Your task to perform on an android device: Play the last video I watched on Youtube Image 0: 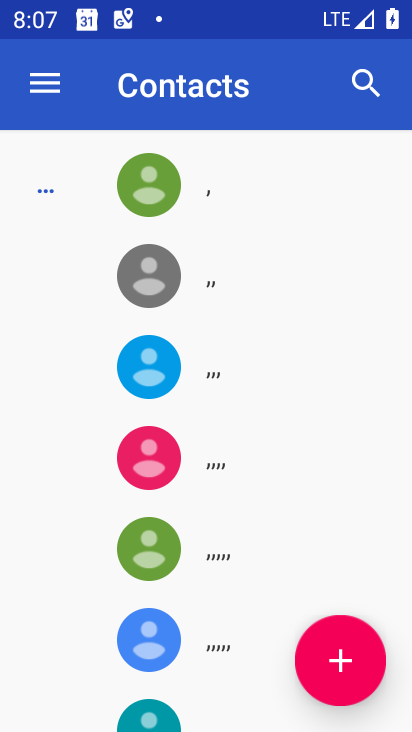
Step 0: press home button
Your task to perform on an android device: Play the last video I watched on Youtube Image 1: 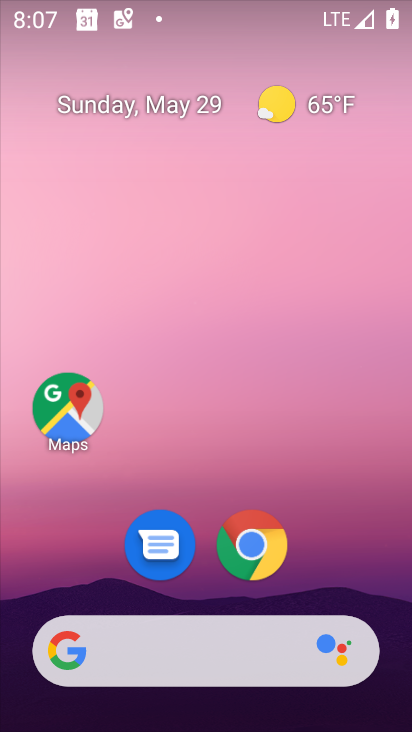
Step 1: drag from (162, 589) to (208, 220)
Your task to perform on an android device: Play the last video I watched on Youtube Image 2: 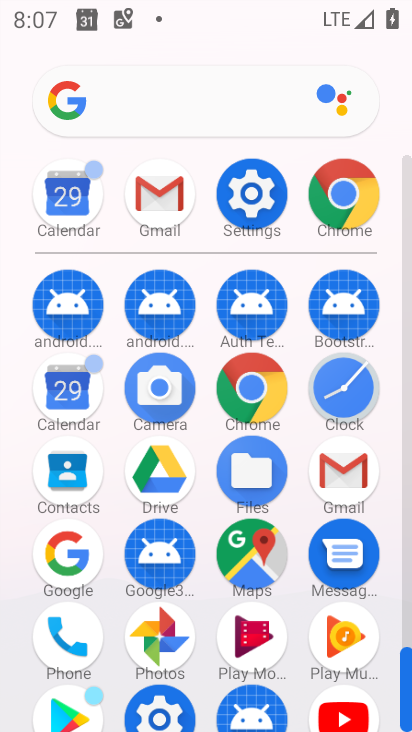
Step 2: click (328, 720)
Your task to perform on an android device: Play the last video I watched on Youtube Image 3: 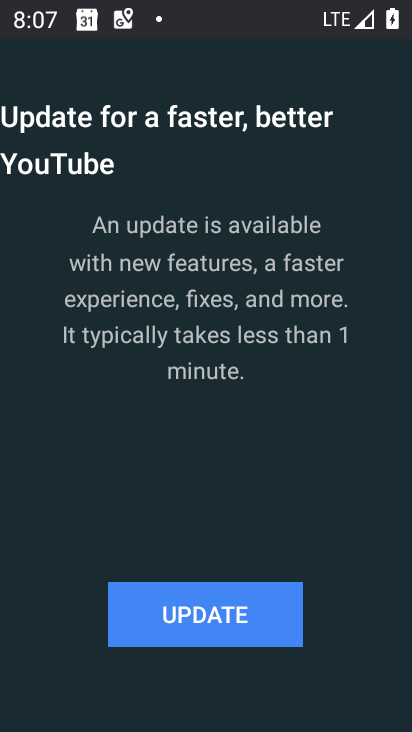
Step 3: click (253, 629)
Your task to perform on an android device: Play the last video I watched on Youtube Image 4: 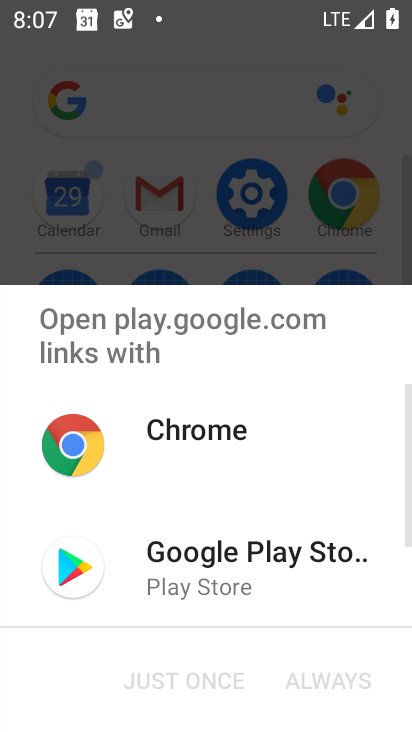
Step 4: click (182, 556)
Your task to perform on an android device: Play the last video I watched on Youtube Image 5: 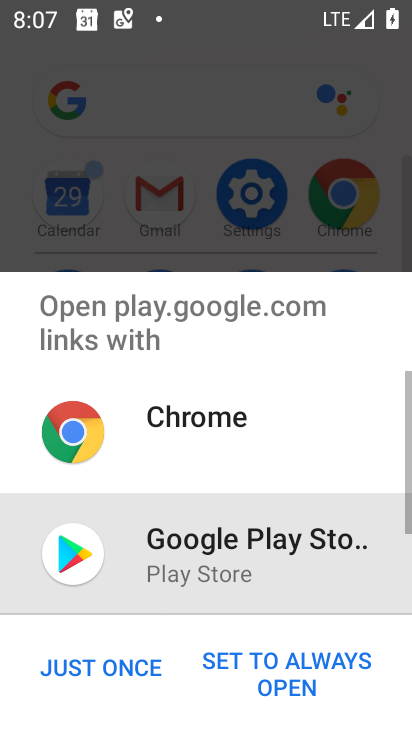
Step 5: click (141, 671)
Your task to perform on an android device: Play the last video I watched on Youtube Image 6: 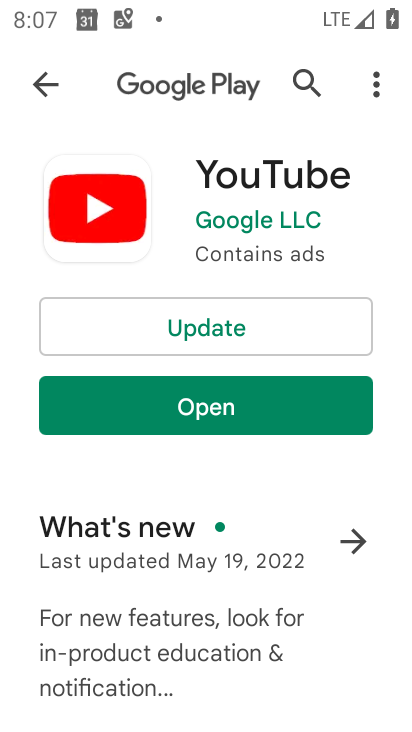
Step 6: click (263, 338)
Your task to perform on an android device: Play the last video I watched on Youtube Image 7: 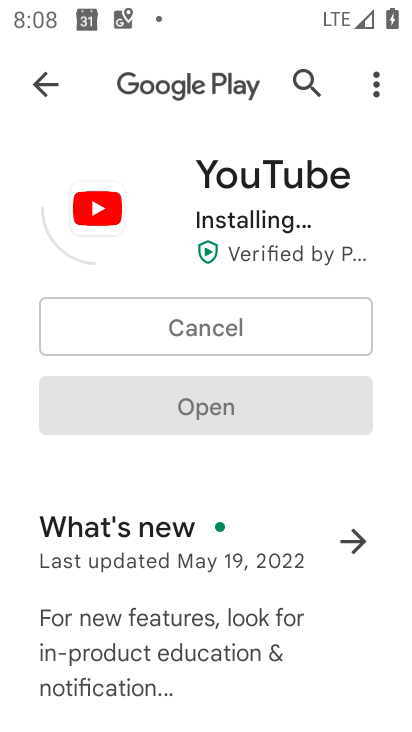
Step 7: task complete